Your task to perform on an android device: Set the phone to "Do not disturb". Image 0: 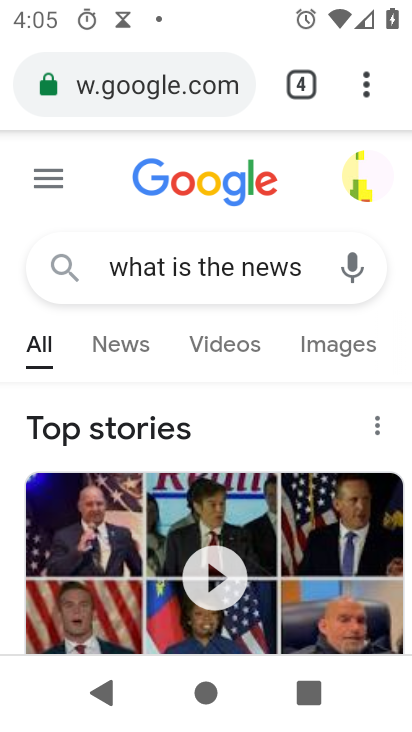
Step 0: click (285, 535)
Your task to perform on an android device: Set the phone to "Do not disturb". Image 1: 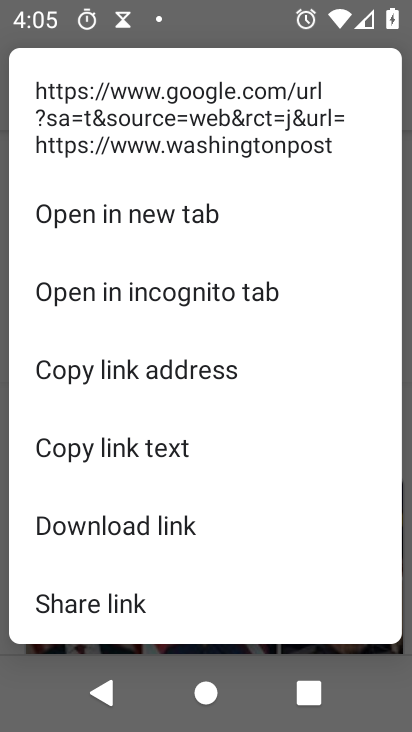
Step 1: press home button
Your task to perform on an android device: Set the phone to "Do not disturb". Image 2: 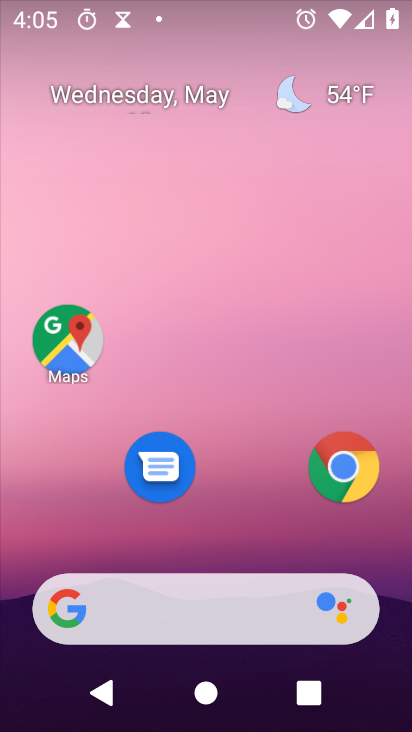
Step 2: drag from (265, 532) to (77, 29)
Your task to perform on an android device: Set the phone to "Do not disturb". Image 3: 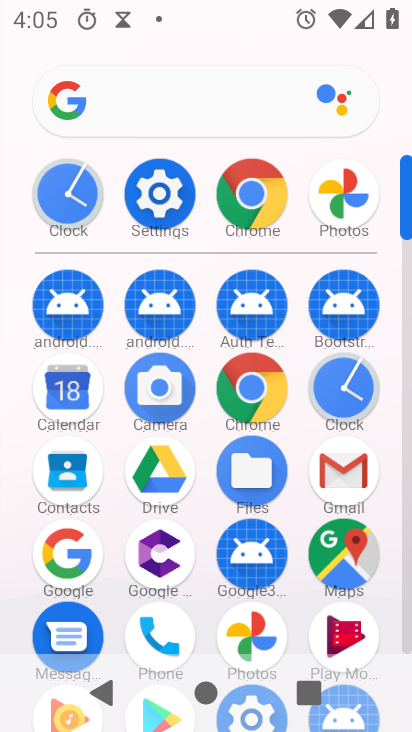
Step 3: click (170, 211)
Your task to perform on an android device: Set the phone to "Do not disturb". Image 4: 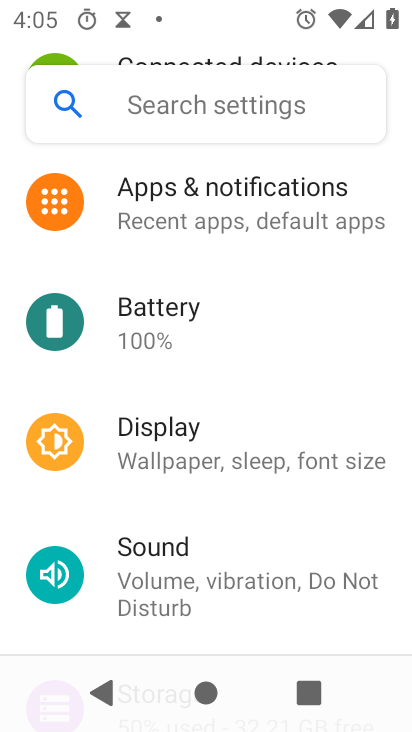
Step 4: drag from (218, 655) to (197, 557)
Your task to perform on an android device: Set the phone to "Do not disturb". Image 5: 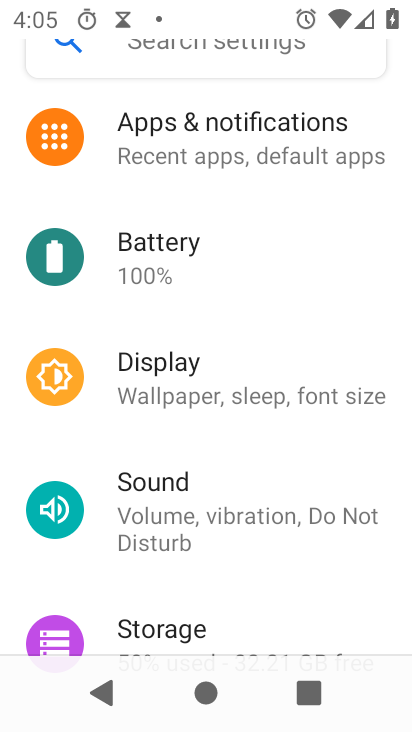
Step 5: click (190, 521)
Your task to perform on an android device: Set the phone to "Do not disturb". Image 6: 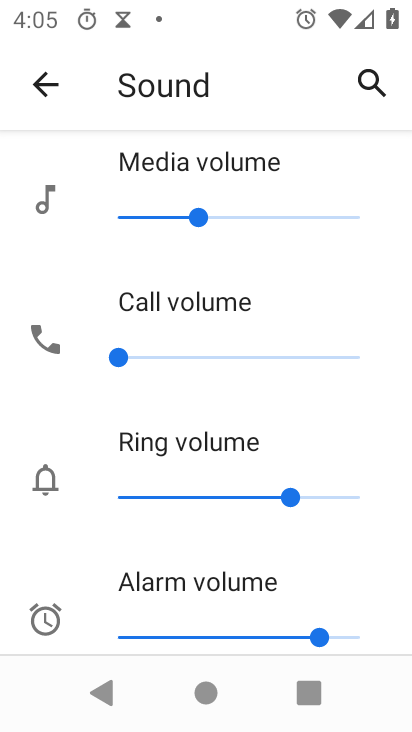
Step 6: drag from (245, 582) to (225, 116)
Your task to perform on an android device: Set the phone to "Do not disturb". Image 7: 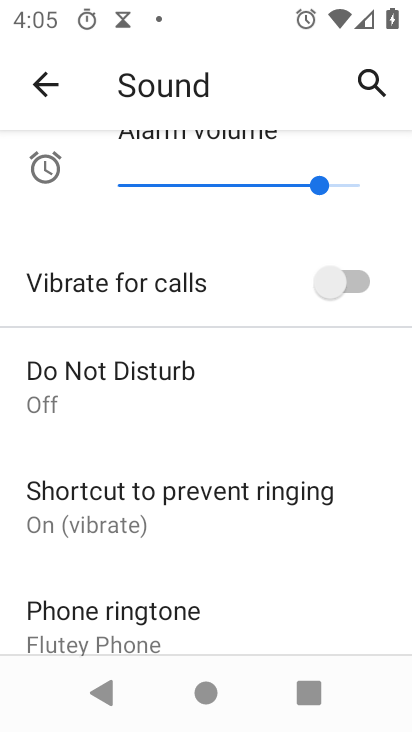
Step 7: click (254, 385)
Your task to perform on an android device: Set the phone to "Do not disturb". Image 8: 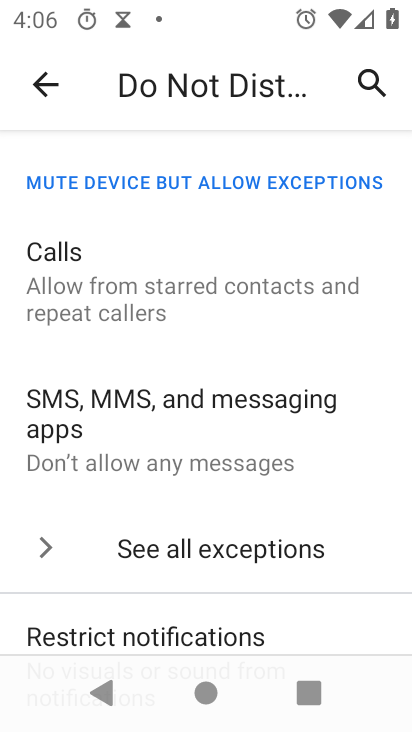
Step 8: task complete